Your task to perform on an android device: Turn on the flashlight Image 0: 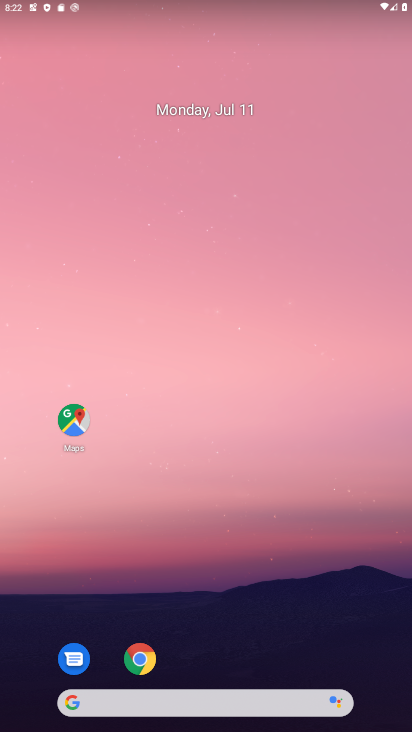
Step 0: click (213, 257)
Your task to perform on an android device: Turn on the flashlight Image 1: 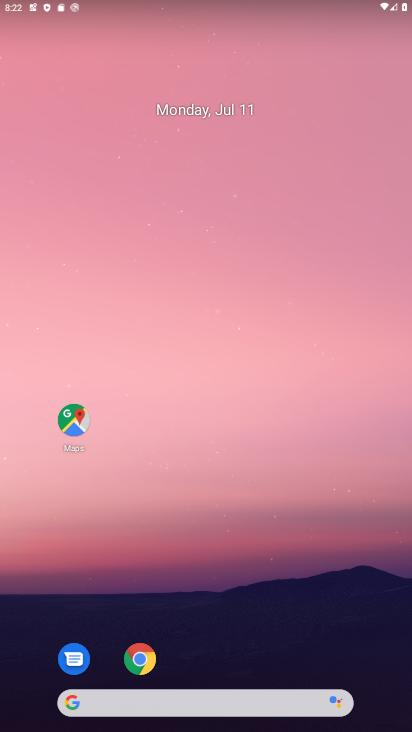
Step 1: drag from (199, 653) to (234, 88)
Your task to perform on an android device: Turn on the flashlight Image 2: 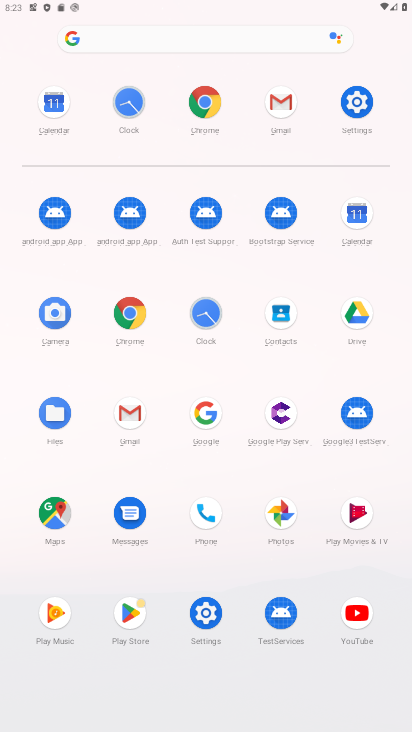
Step 2: click (361, 97)
Your task to perform on an android device: Turn on the flashlight Image 3: 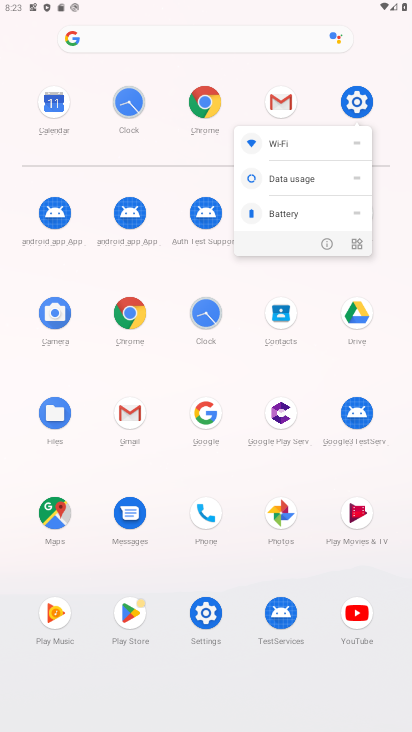
Step 3: click (327, 246)
Your task to perform on an android device: Turn on the flashlight Image 4: 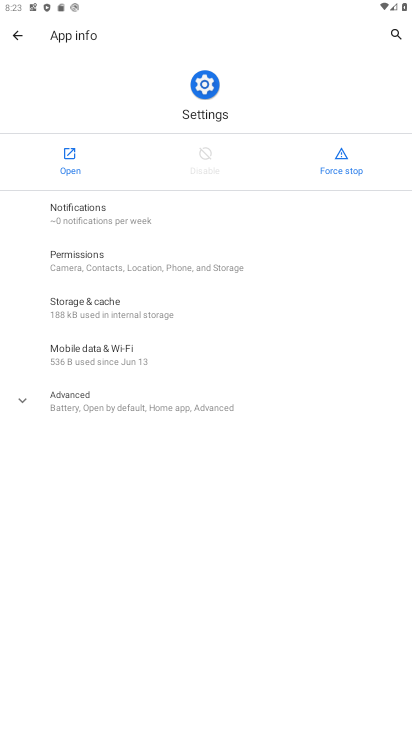
Step 4: click (65, 159)
Your task to perform on an android device: Turn on the flashlight Image 5: 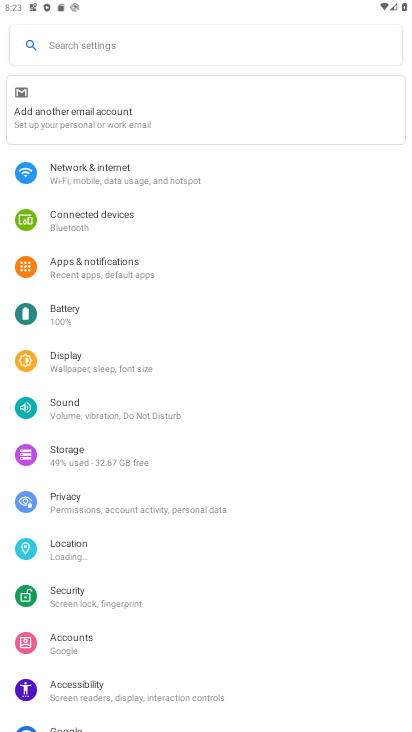
Step 5: click (96, 50)
Your task to perform on an android device: Turn on the flashlight Image 6: 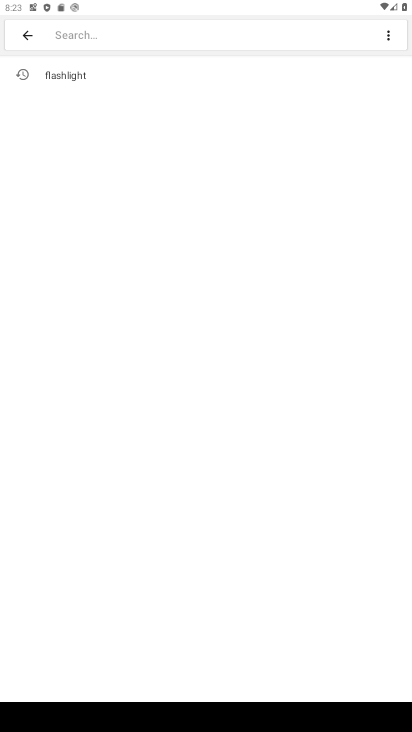
Step 6: click (84, 77)
Your task to perform on an android device: Turn on the flashlight Image 7: 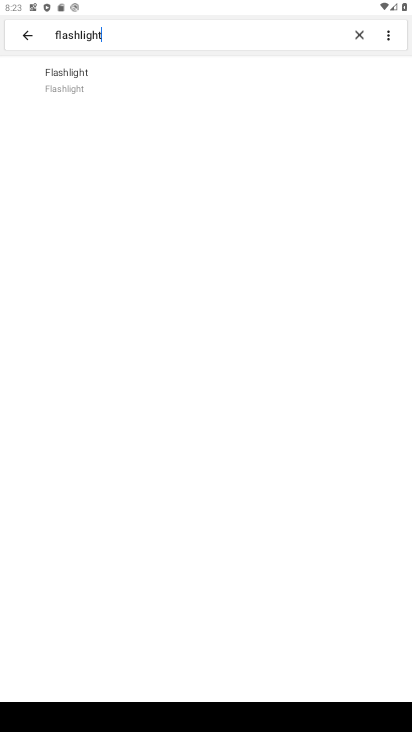
Step 7: task complete